Your task to perform on an android device: toggle pop-ups in chrome Image 0: 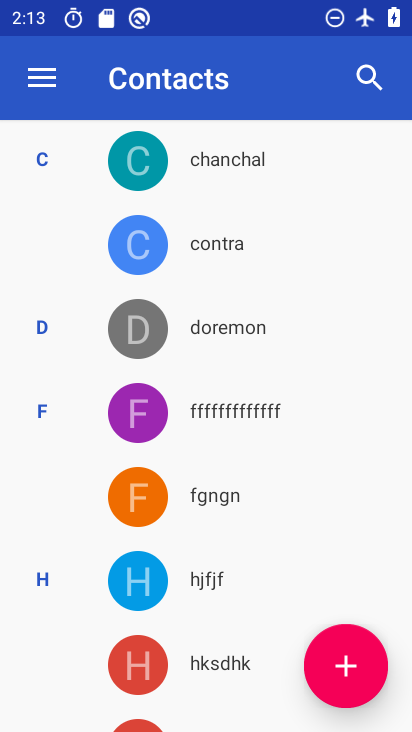
Step 0: press home button
Your task to perform on an android device: toggle pop-ups in chrome Image 1: 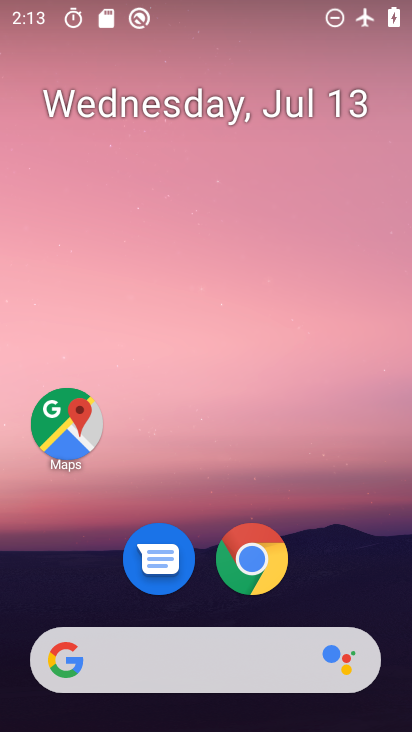
Step 1: drag from (252, 590) to (346, 96)
Your task to perform on an android device: toggle pop-ups in chrome Image 2: 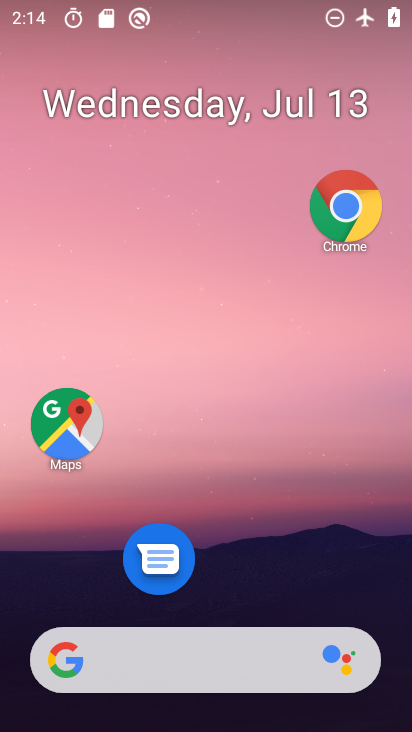
Step 2: drag from (228, 625) to (317, 246)
Your task to perform on an android device: toggle pop-ups in chrome Image 3: 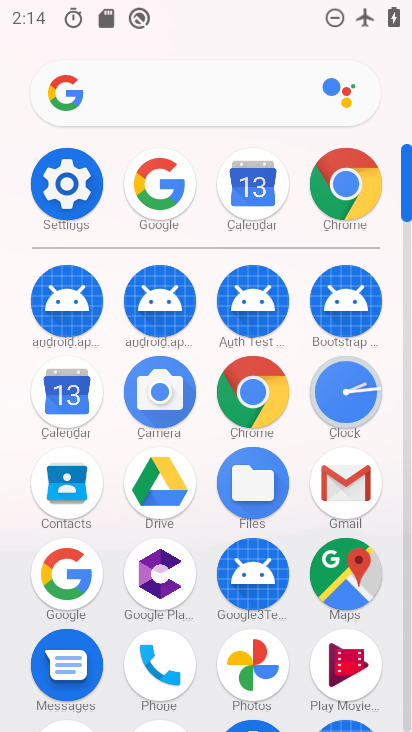
Step 3: click (346, 207)
Your task to perform on an android device: toggle pop-ups in chrome Image 4: 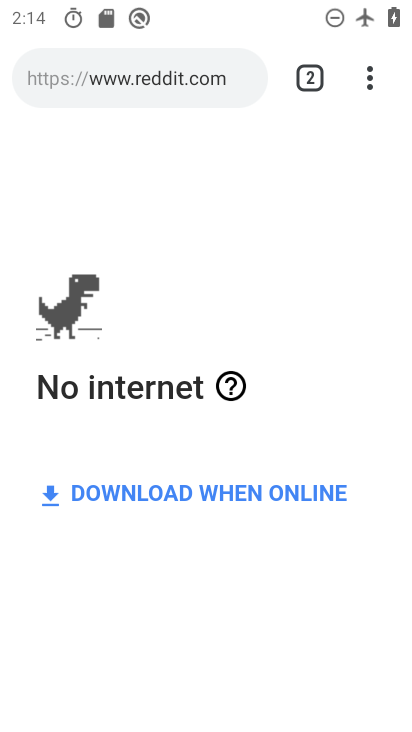
Step 4: click (370, 82)
Your task to perform on an android device: toggle pop-ups in chrome Image 5: 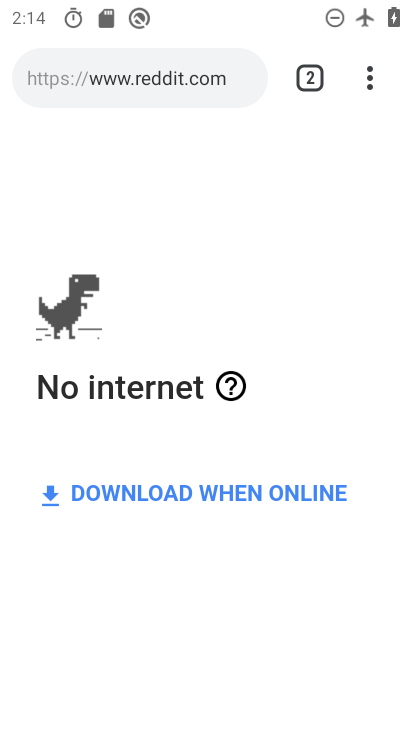
Step 5: click (370, 86)
Your task to perform on an android device: toggle pop-ups in chrome Image 6: 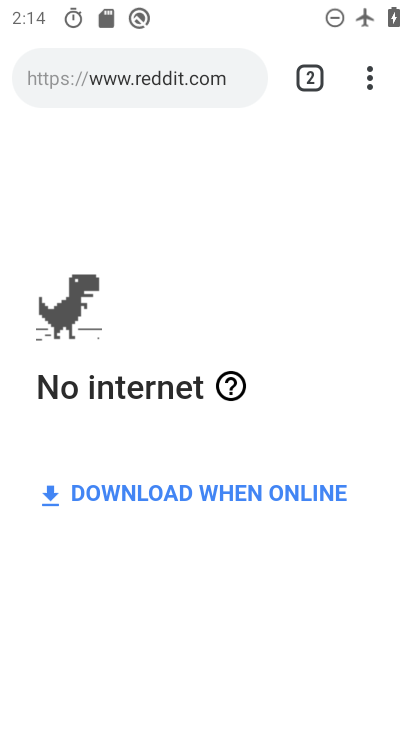
Step 6: click (364, 77)
Your task to perform on an android device: toggle pop-ups in chrome Image 7: 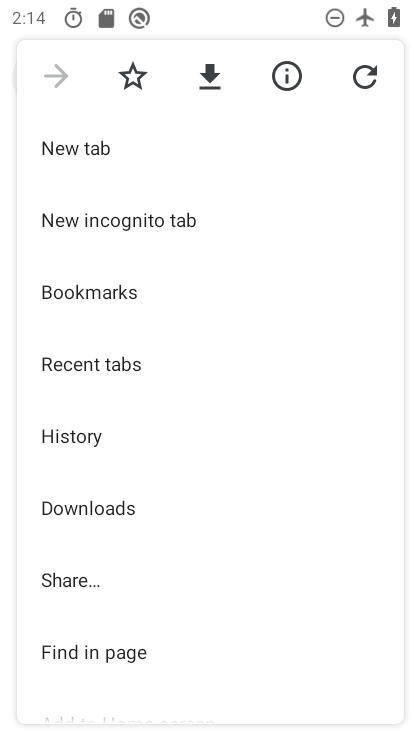
Step 7: drag from (166, 552) to (227, 221)
Your task to perform on an android device: toggle pop-ups in chrome Image 8: 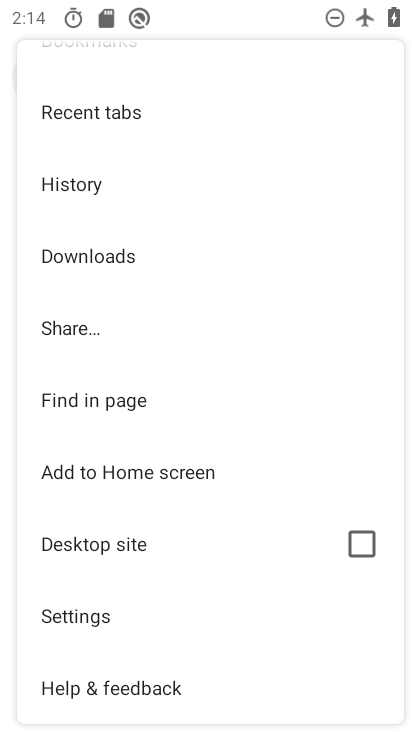
Step 8: click (100, 612)
Your task to perform on an android device: toggle pop-ups in chrome Image 9: 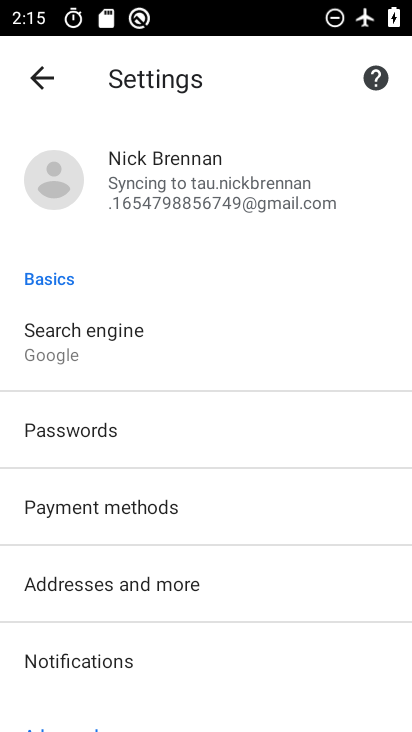
Step 9: drag from (73, 661) to (125, 306)
Your task to perform on an android device: toggle pop-ups in chrome Image 10: 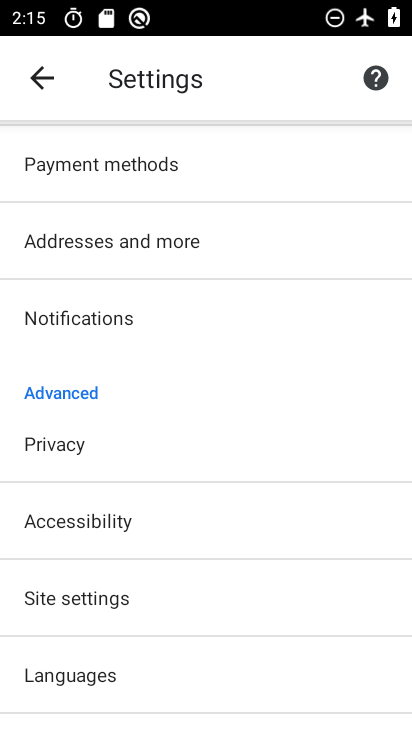
Step 10: drag from (160, 563) to (171, 409)
Your task to perform on an android device: toggle pop-ups in chrome Image 11: 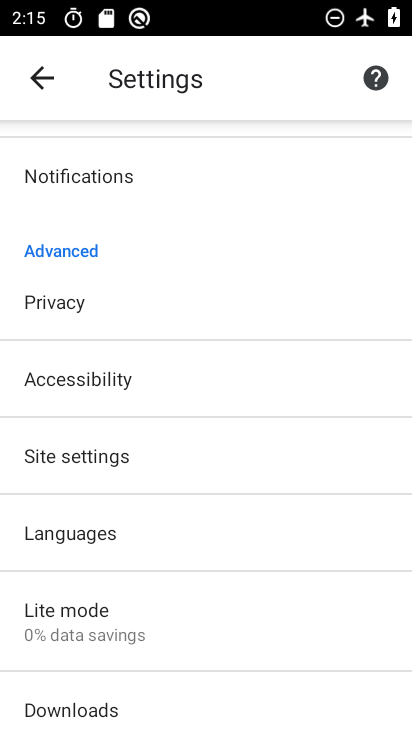
Step 11: click (67, 463)
Your task to perform on an android device: toggle pop-ups in chrome Image 12: 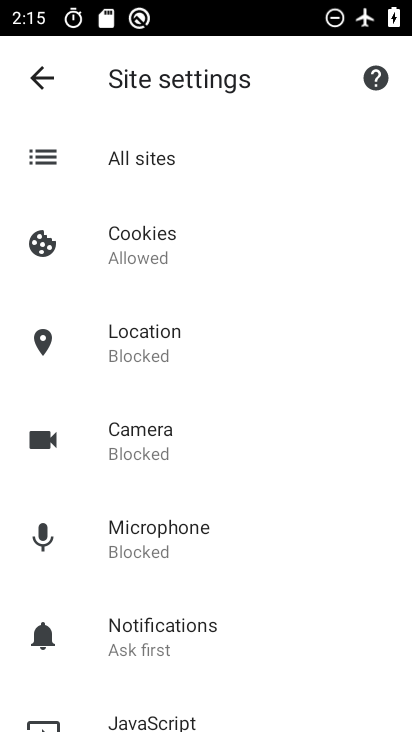
Step 12: drag from (167, 348) to (184, 535)
Your task to perform on an android device: toggle pop-ups in chrome Image 13: 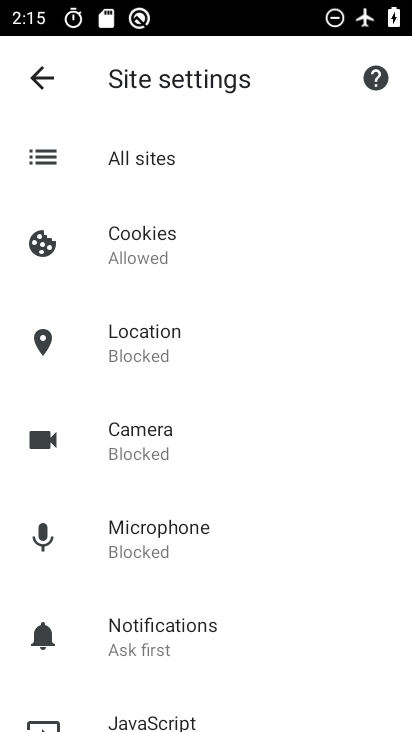
Step 13: drag from (164, 557) to (231, 268)
Your task to perform on an android device: toggle pop-ups in chrome Image 14: 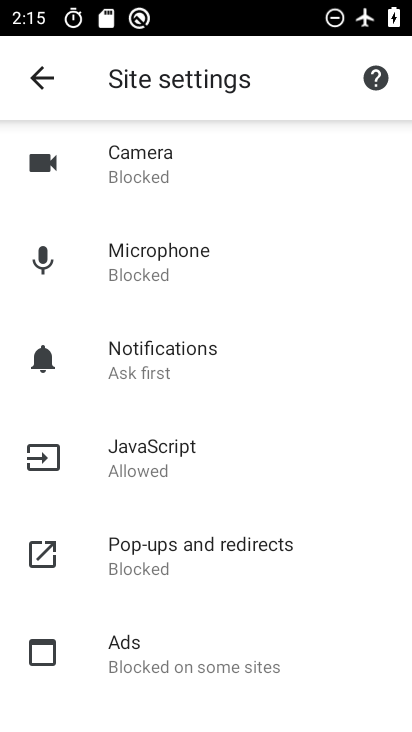
Step 14: click (162, 561)
Your task to perform on an android device: toggle pop-ups in chrome Image 15: 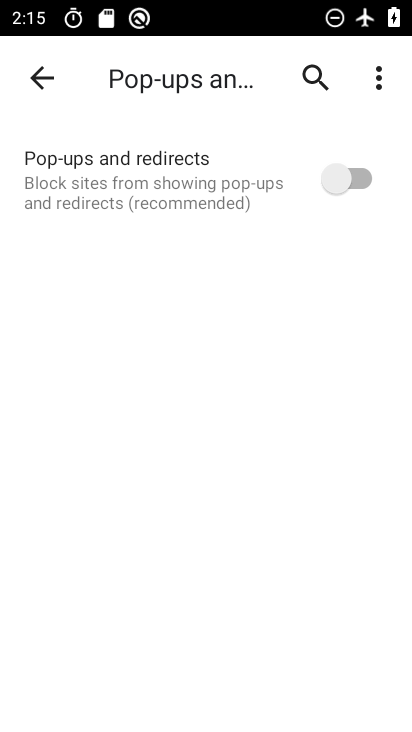
Step 15: click (276, 190)
Your task to perform on an android device: toggle pop-ups in chrome Image 16: 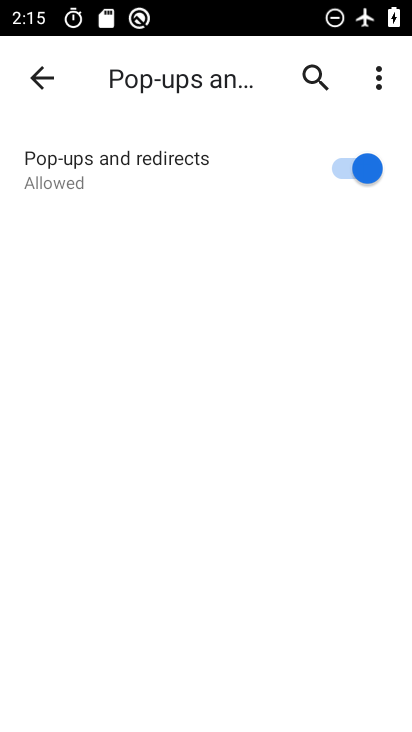
Step 16: task complete